Your task to perform on an android device: Search for razer huntsman on amazon, select the first entry, add it to the cart, then select checkout. Image 0: 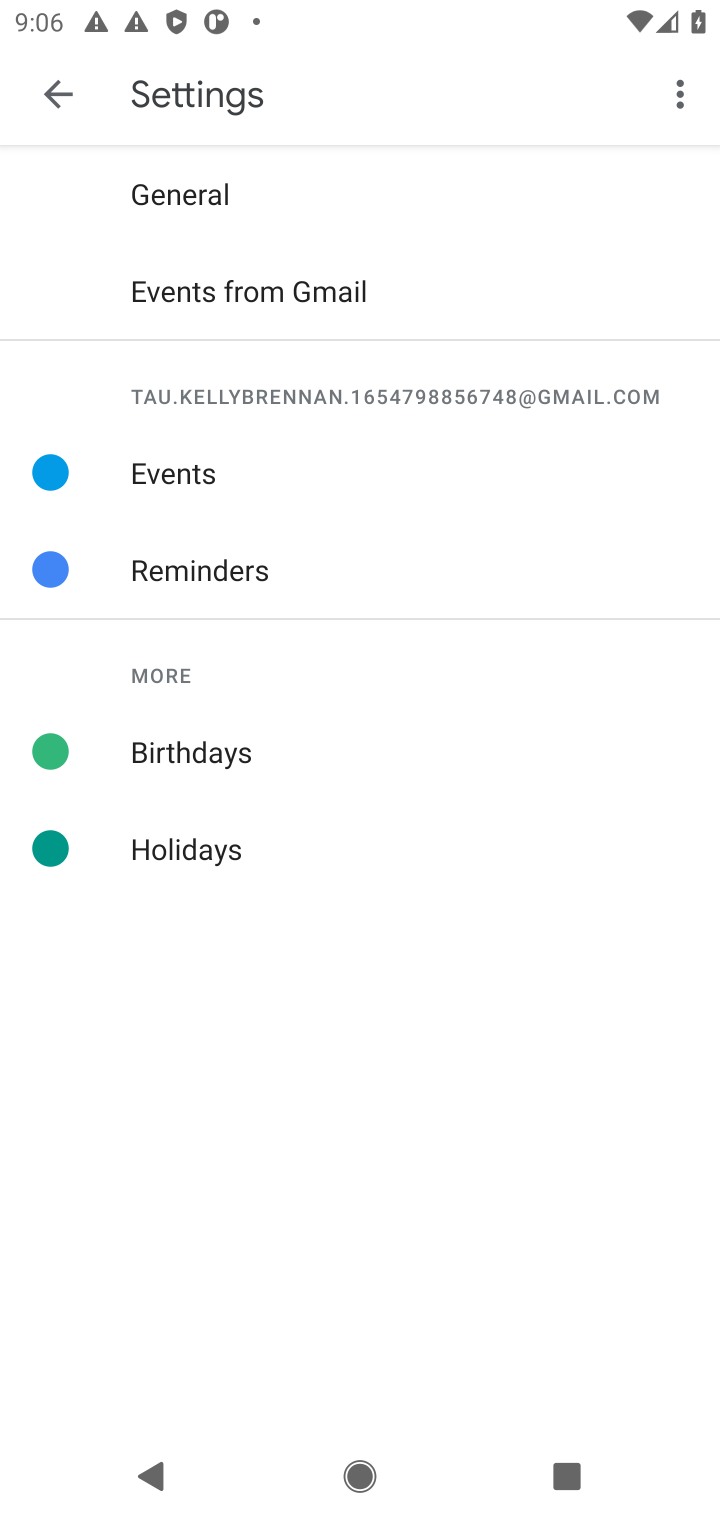
Step 0: press home button
Your task to perform on an android device: Search for razer huntsman on amazon, select the first entry, add it to the cart, then select checkout. Image 1: 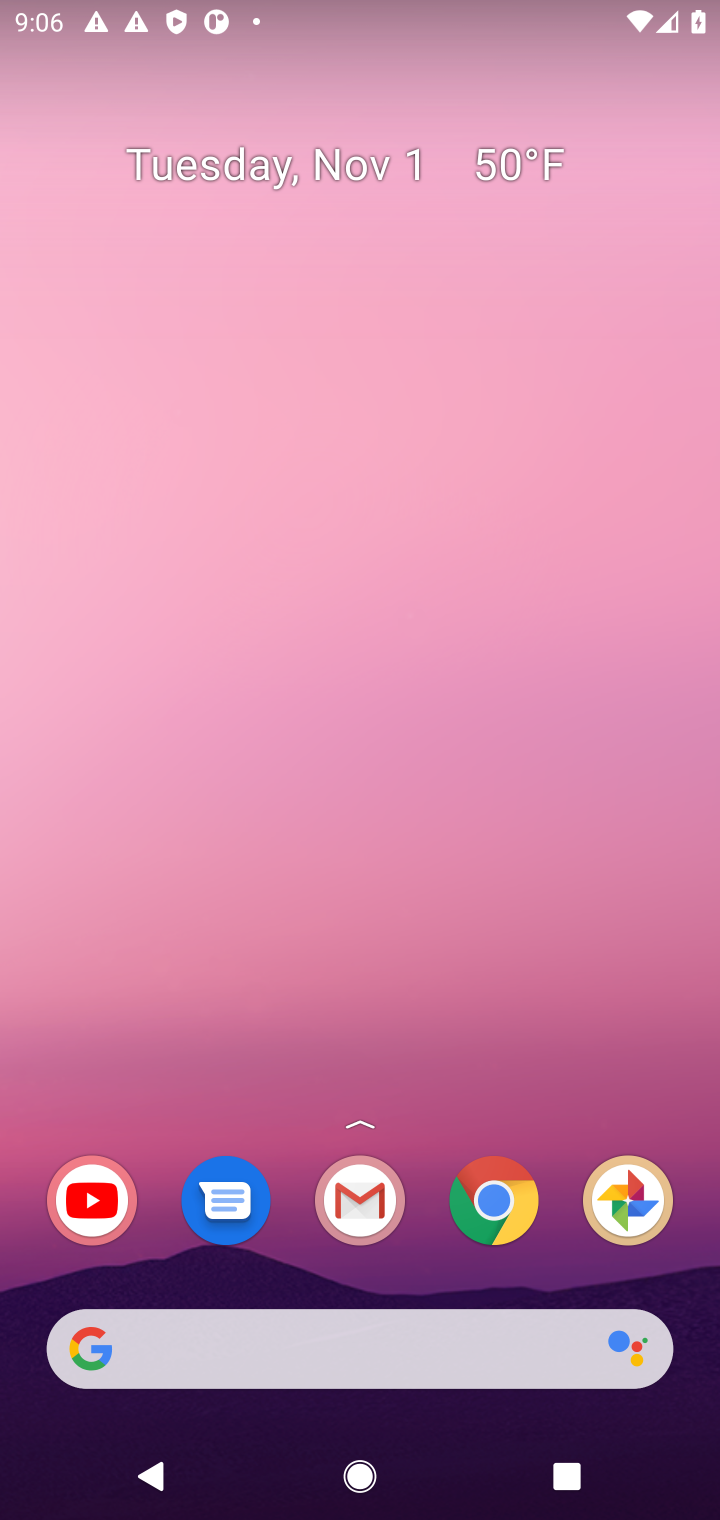
Step 1: click (175, 1371)
Your task to perform on an android device: Search for razer huntsman on amazon, select the first entry, add it to the cart, then select checkout. Image 2: 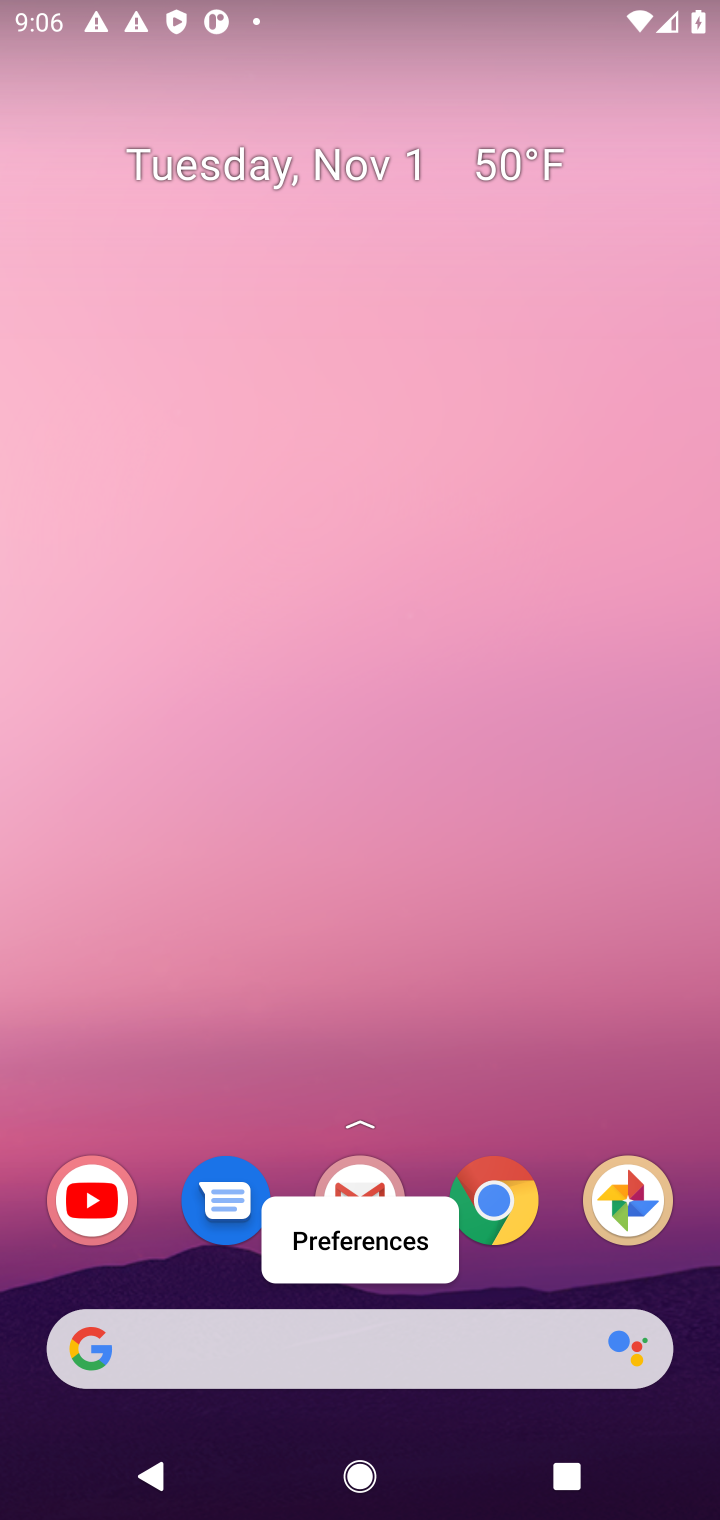
Step 2: click (190, 1368)
Your task to perform on an android device: Search for razer huntsman on amazon, select the first entry, add it to the cart, then select checkout. Image 3: 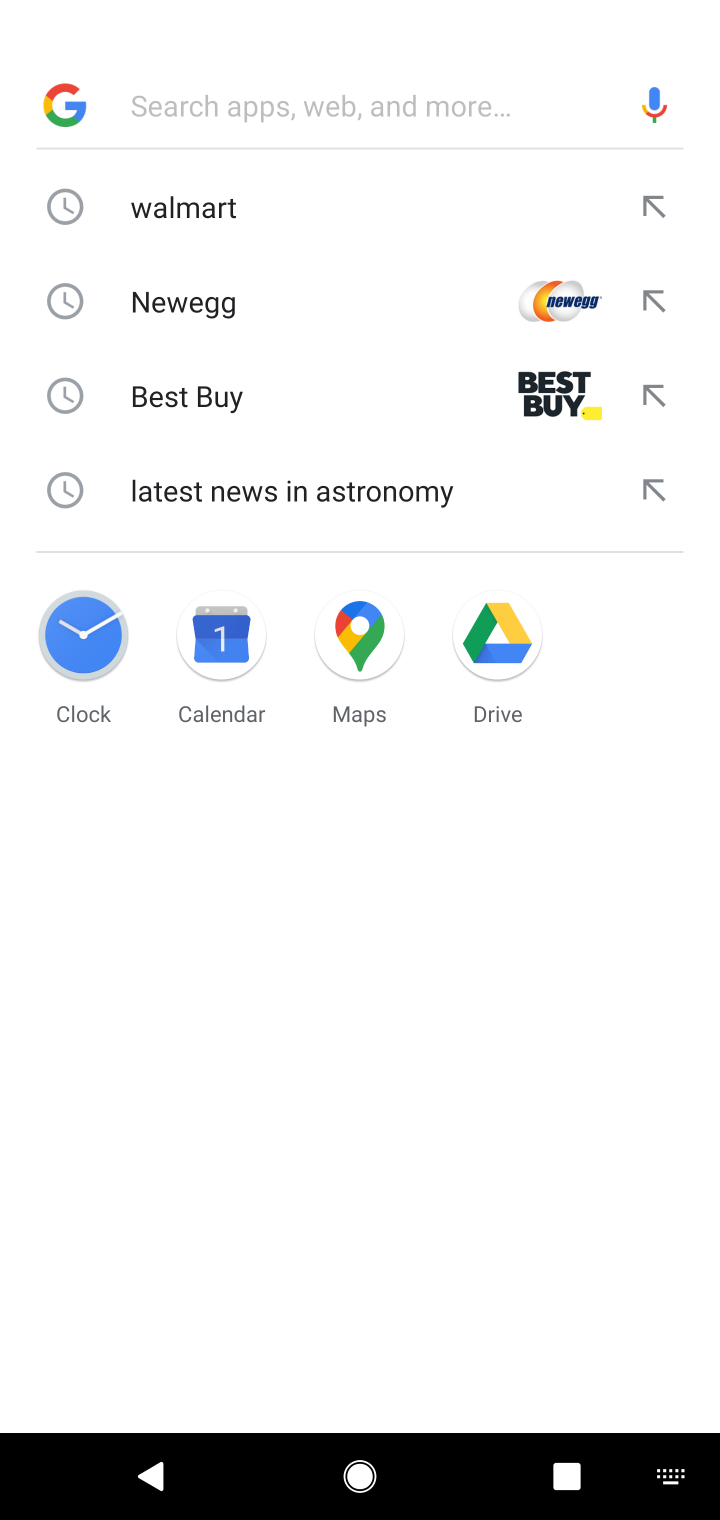
Step 3: type "amazon"
Your task to perform on an android device: Search for razer huntsman on amazon, select the first entry, add it to the cart, then select checkout. Image 4: 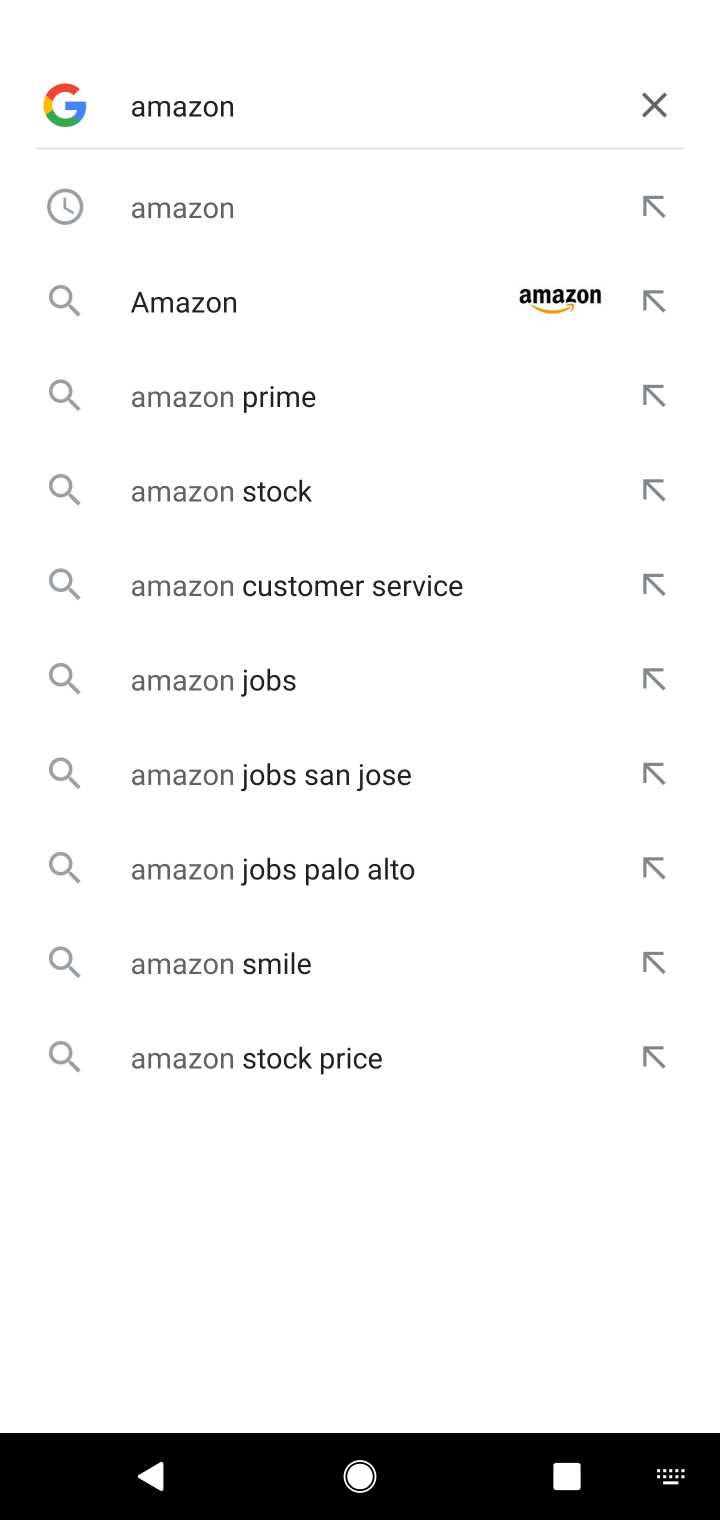
Step 4: click (284, 202)
Your task to perform on an android device: Search for razer huntsman on amazon, select the first entry, add it to the cart, then select checkout. Image 5: 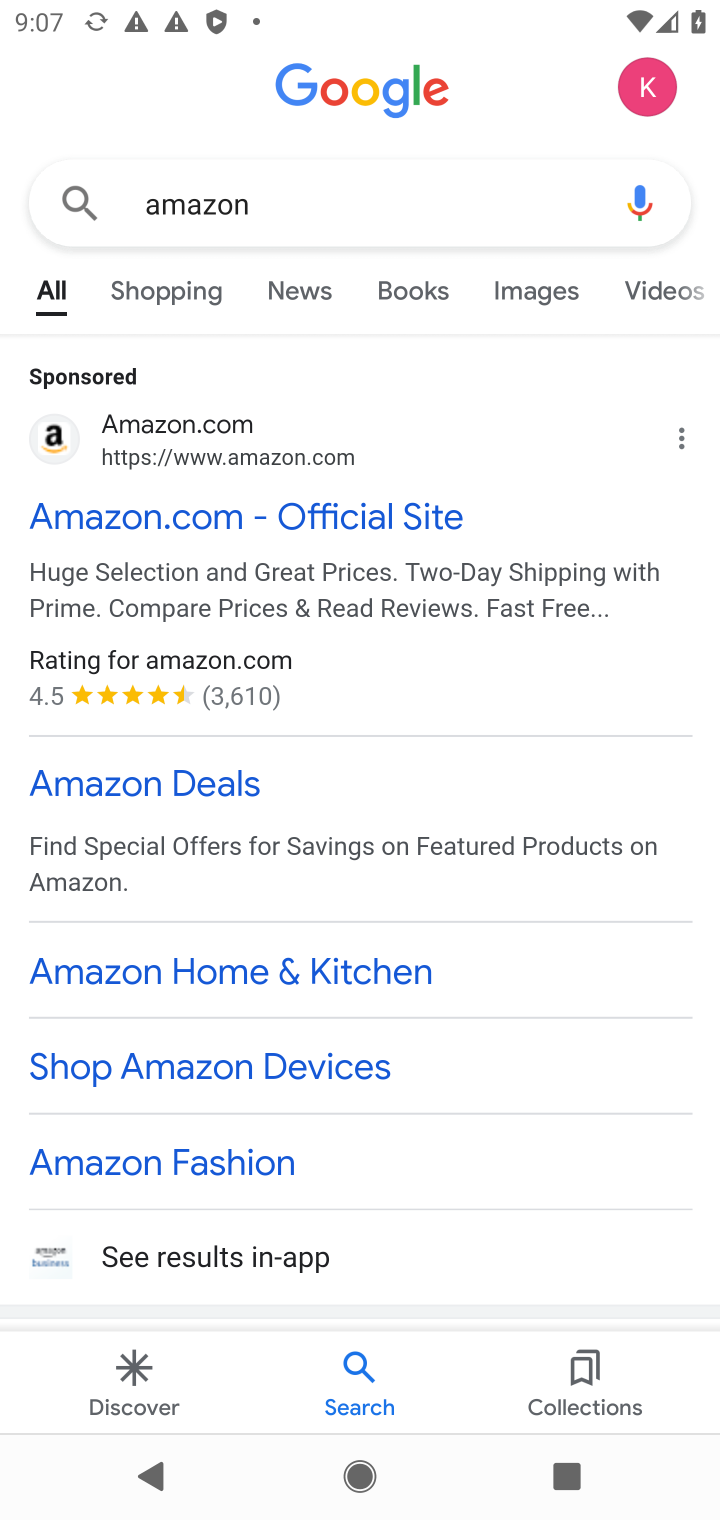
Step 5: click (147, 502)
Your task to perform on an android device: Search for razer huntsman on amazon, select the first entry, add it to the cart, then select checkout. Image 6: 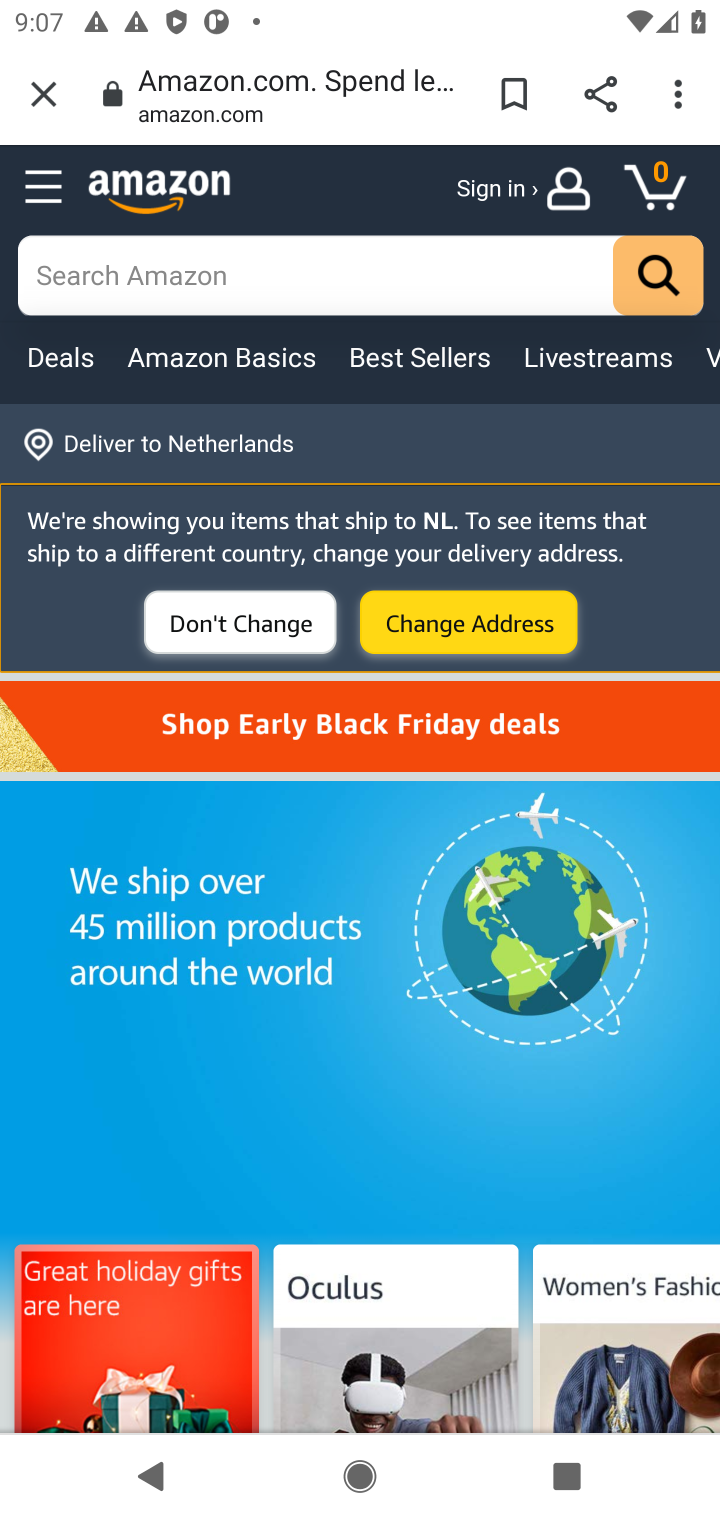
Step 6: click (300, 271)
Your task to perform on an android device: Search for razer huntsman on amazon, select the first entry, add it to the cart, then select checkout. Image 7: 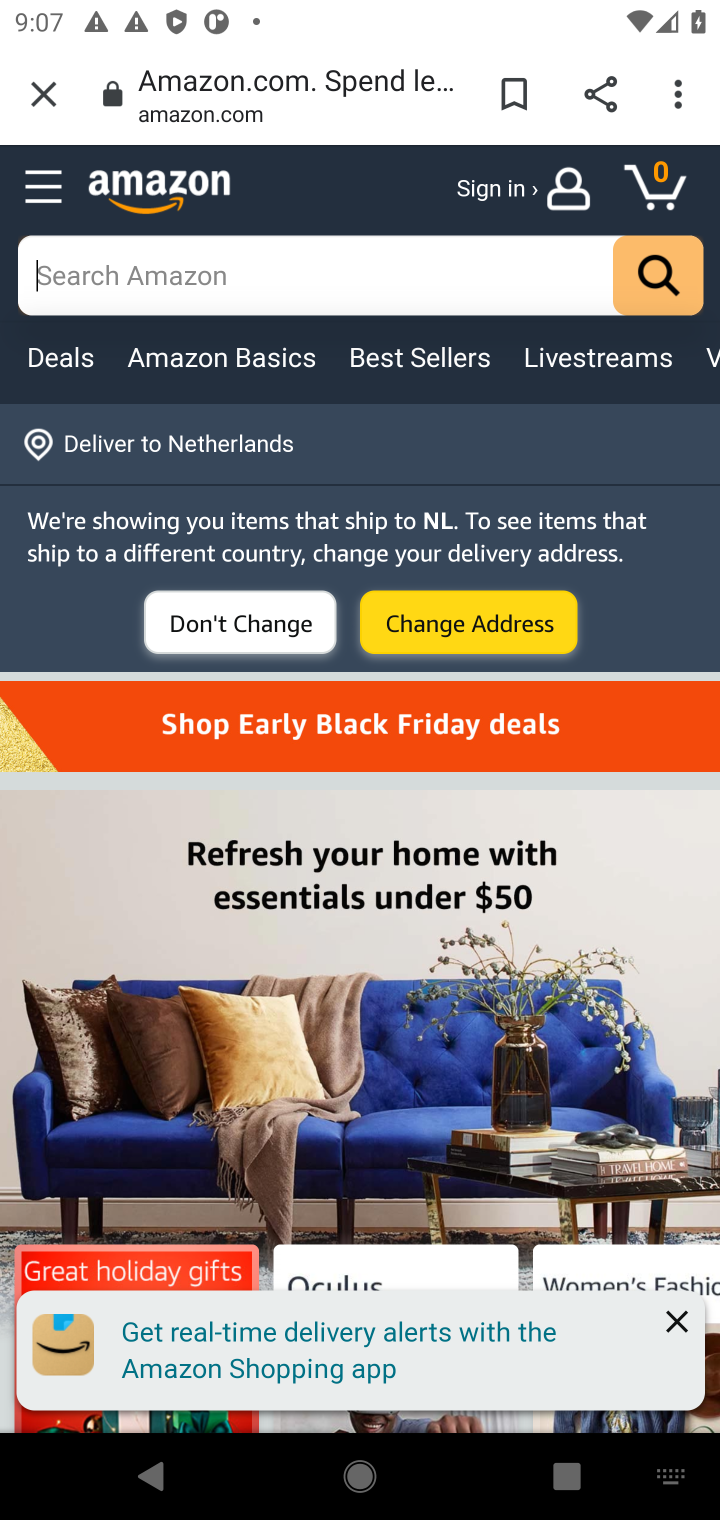
Step 7: type "razer huntsman"
Your task to perform on an android device: Search for razer huntsman on amazon, select the first entry, add it to the cart, then select checkout. Image 8: 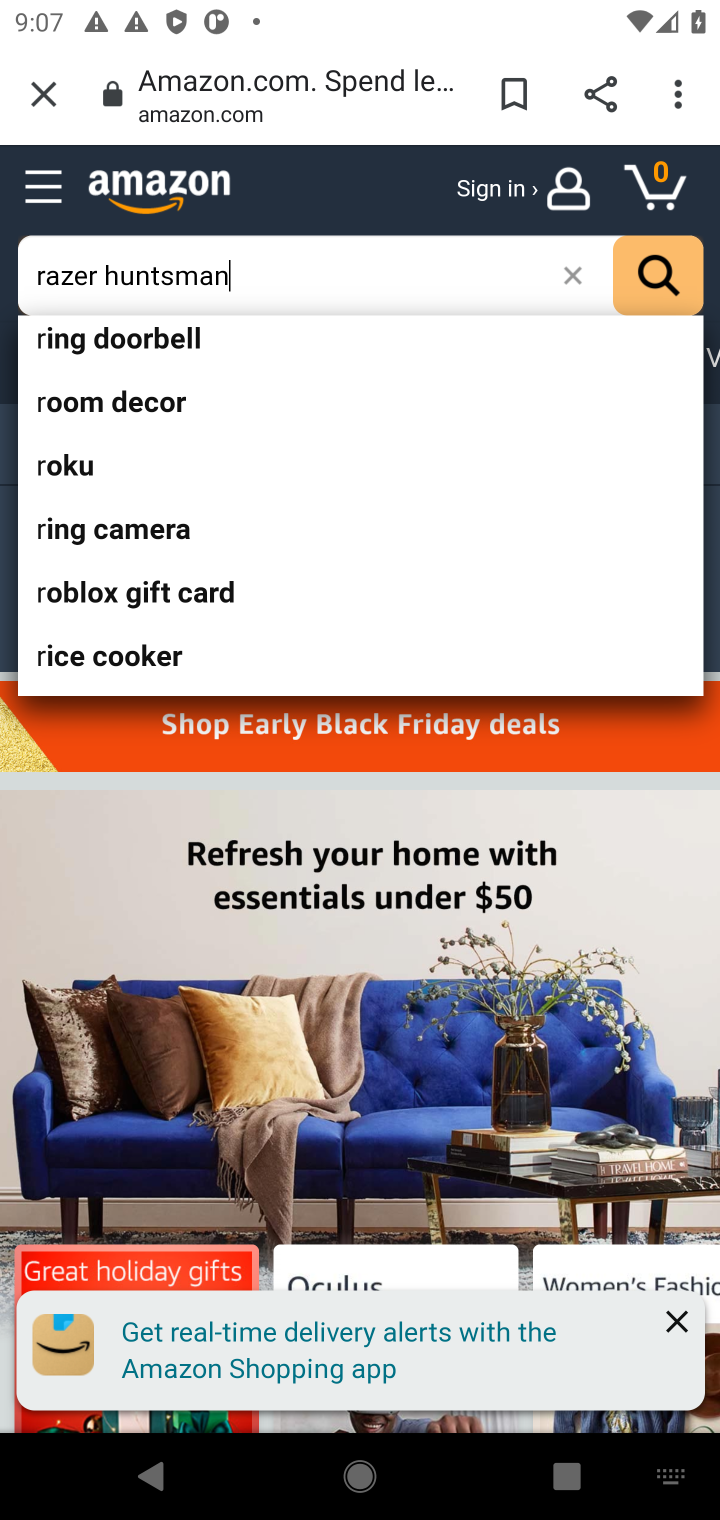
Step 8: type ""
Your task to perform on an android device: Search for razer huntsman on amazon, select the first entry, add it to the cart, then select checkout. Image 9: 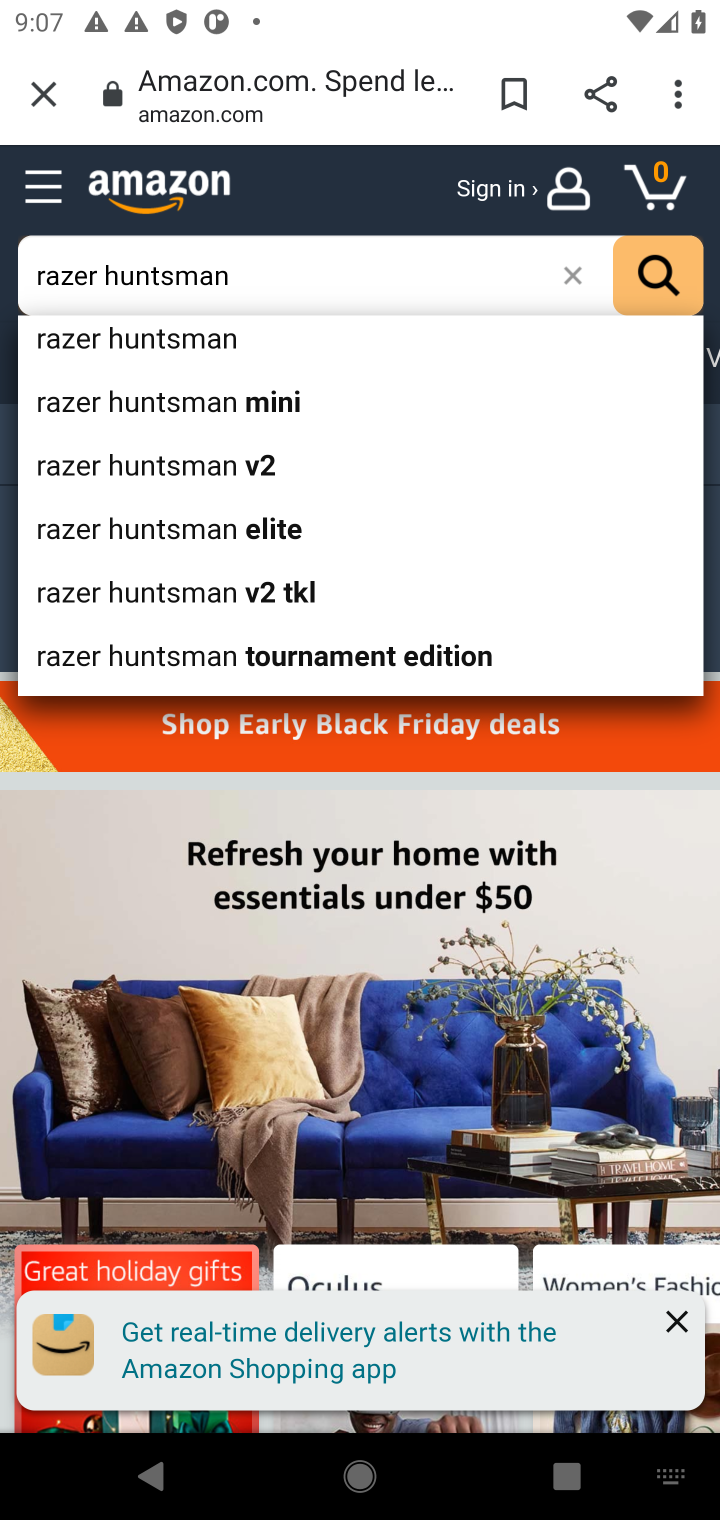
Step 9: click (175, 319)
Your task to perform on an android device: Search for razer huntsman on amazon, select the first entry, add it to the cart, then select checkout. Image 10: 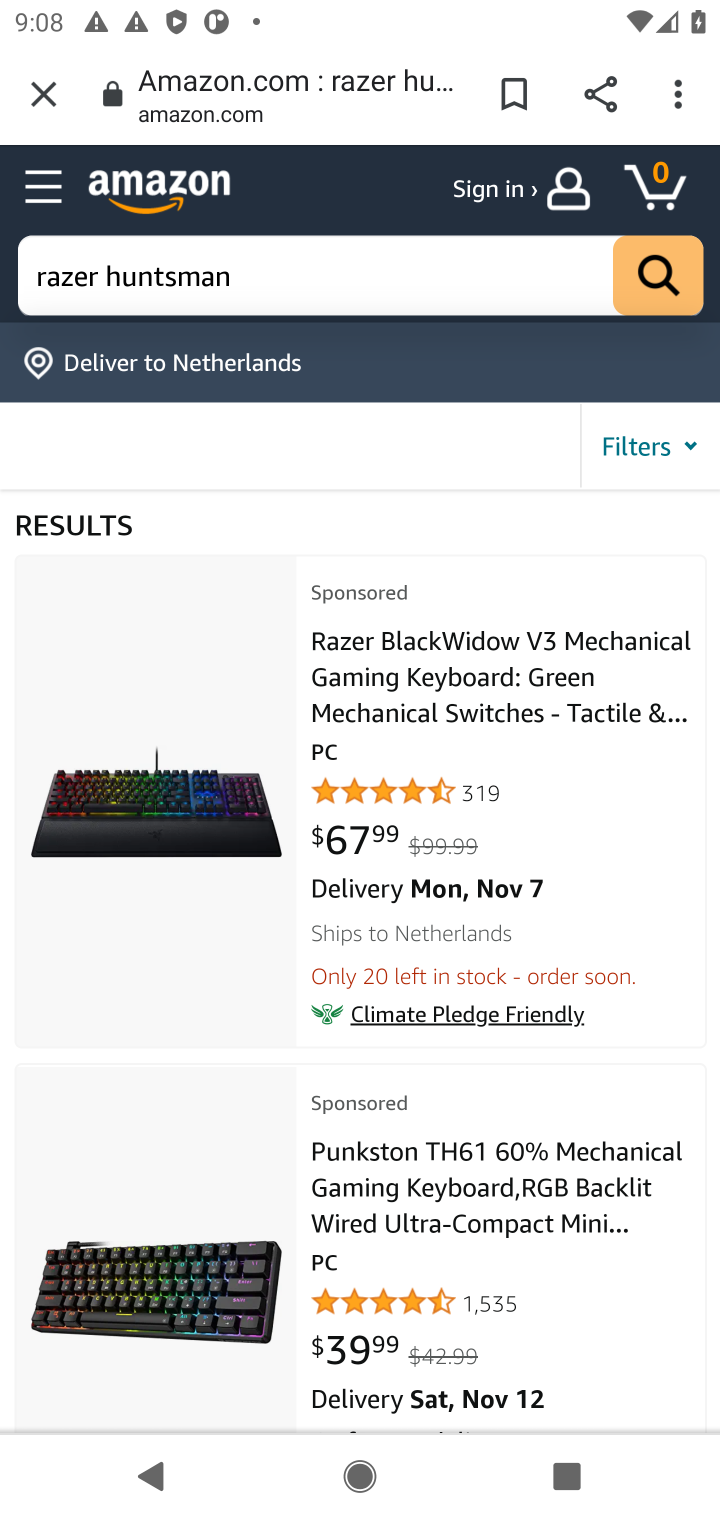
Step 10: click (511, 348)
Your task to perform on an android device: Search for razer huntsman on amazon, select the first entry, add it to the cart, then select checkout. Image 11: 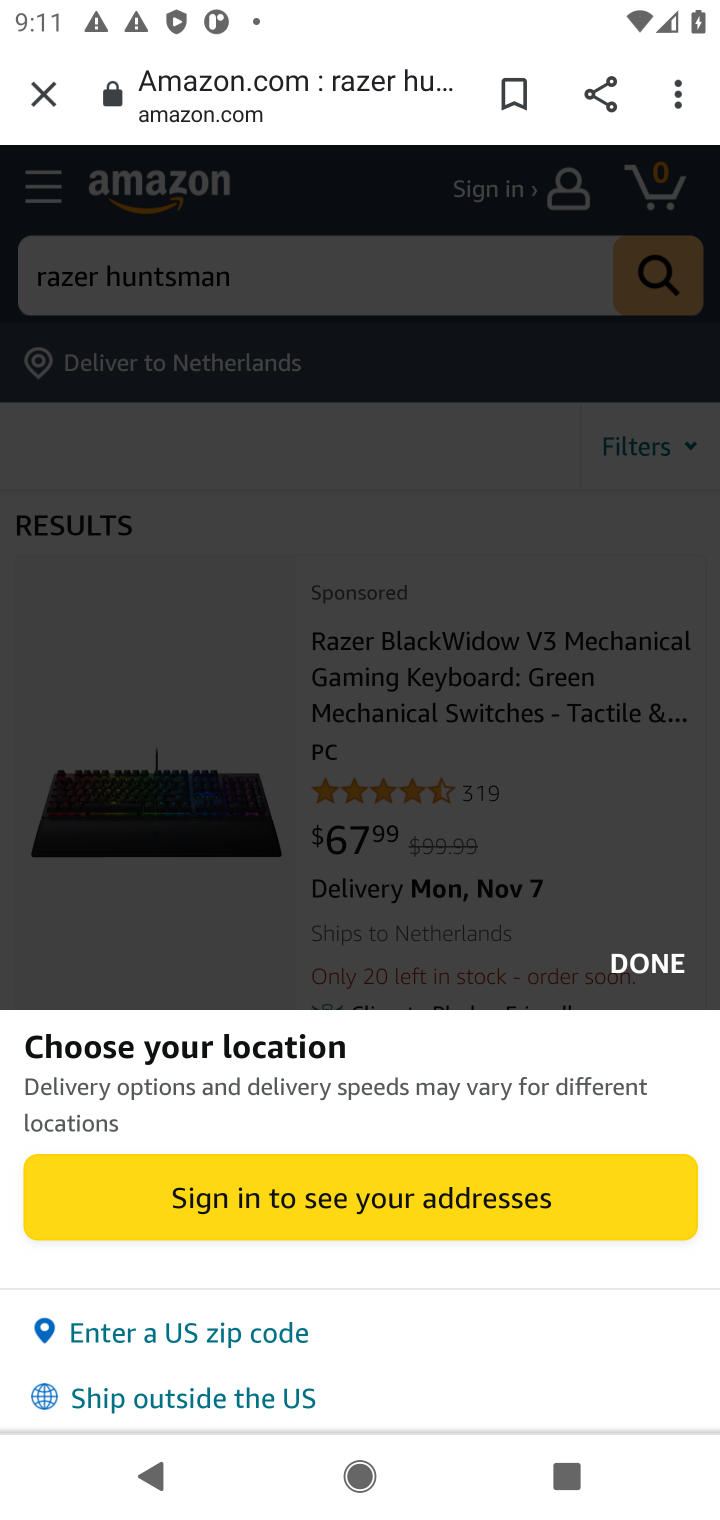
Step 11: click (606, 982)
Your task to perform on an android device: Search for razer huntsman on amazon, select the first entry, add it to the cart, then select checkout. Image 12: 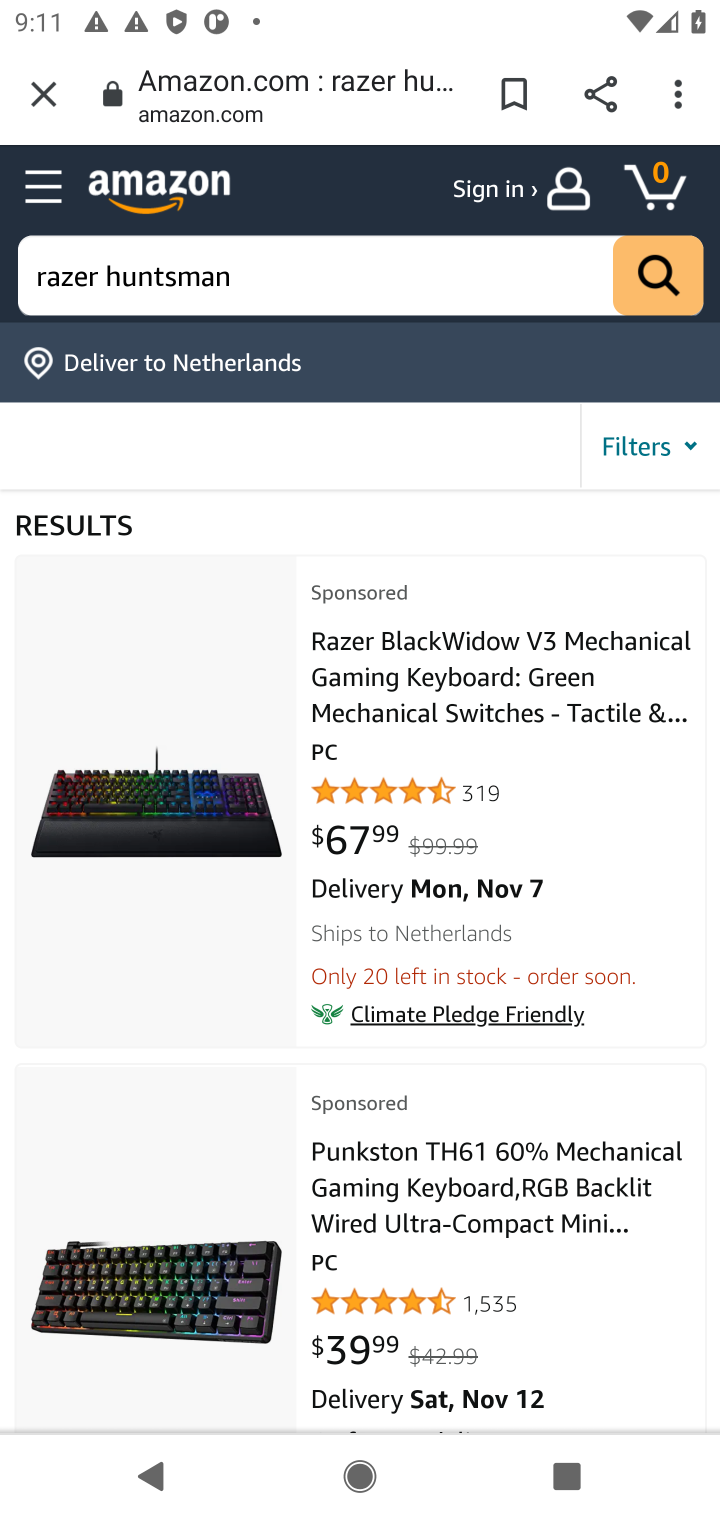
Step 12: click (395, 723)
Your task to perform on an android device: Search for razer huntsman on amazon, select the first entry, add it to the cart, then select checkout. Image 13: 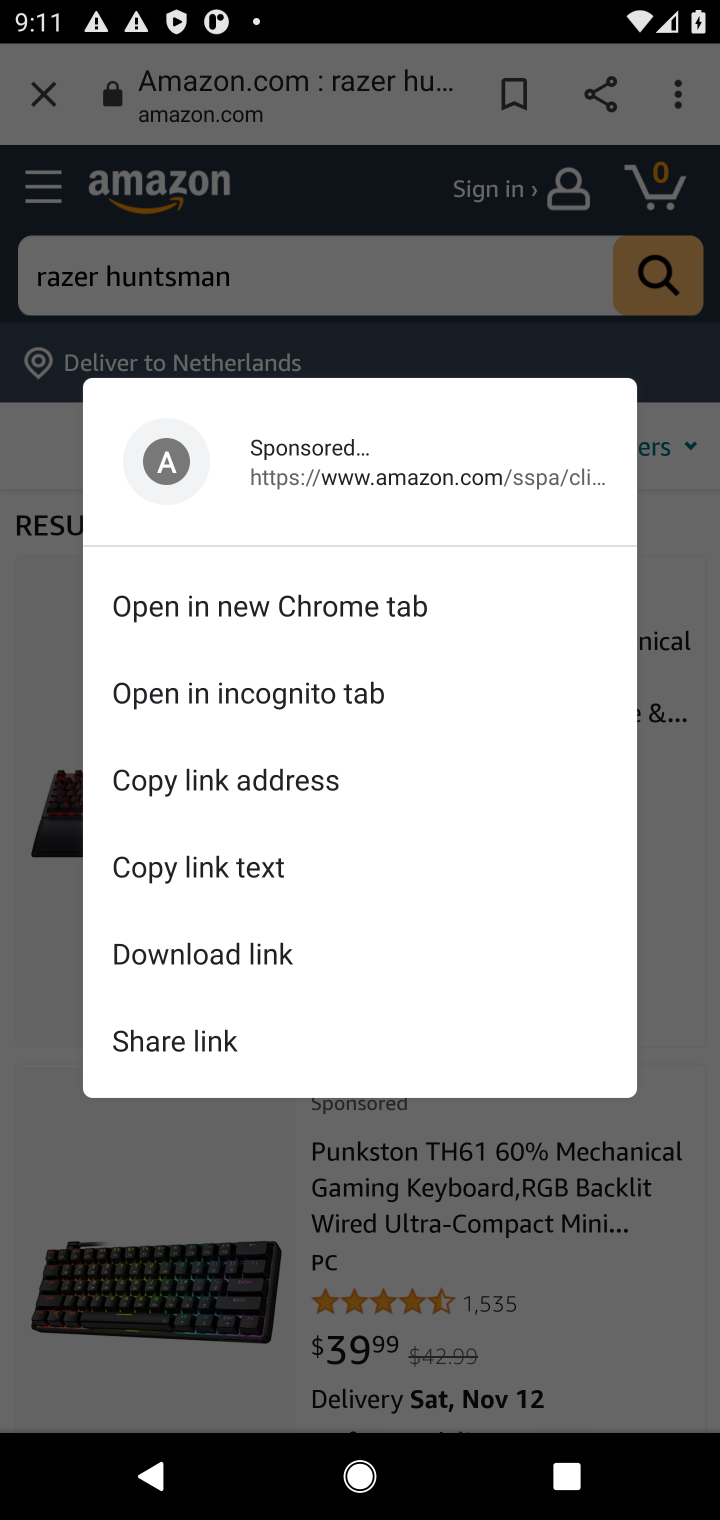
Step 13: click (688, 676)
Your task to perform on an android device: Search for razer huntsman on amazon, select the first entry, add it to the cart, then select checkout. Image 14: 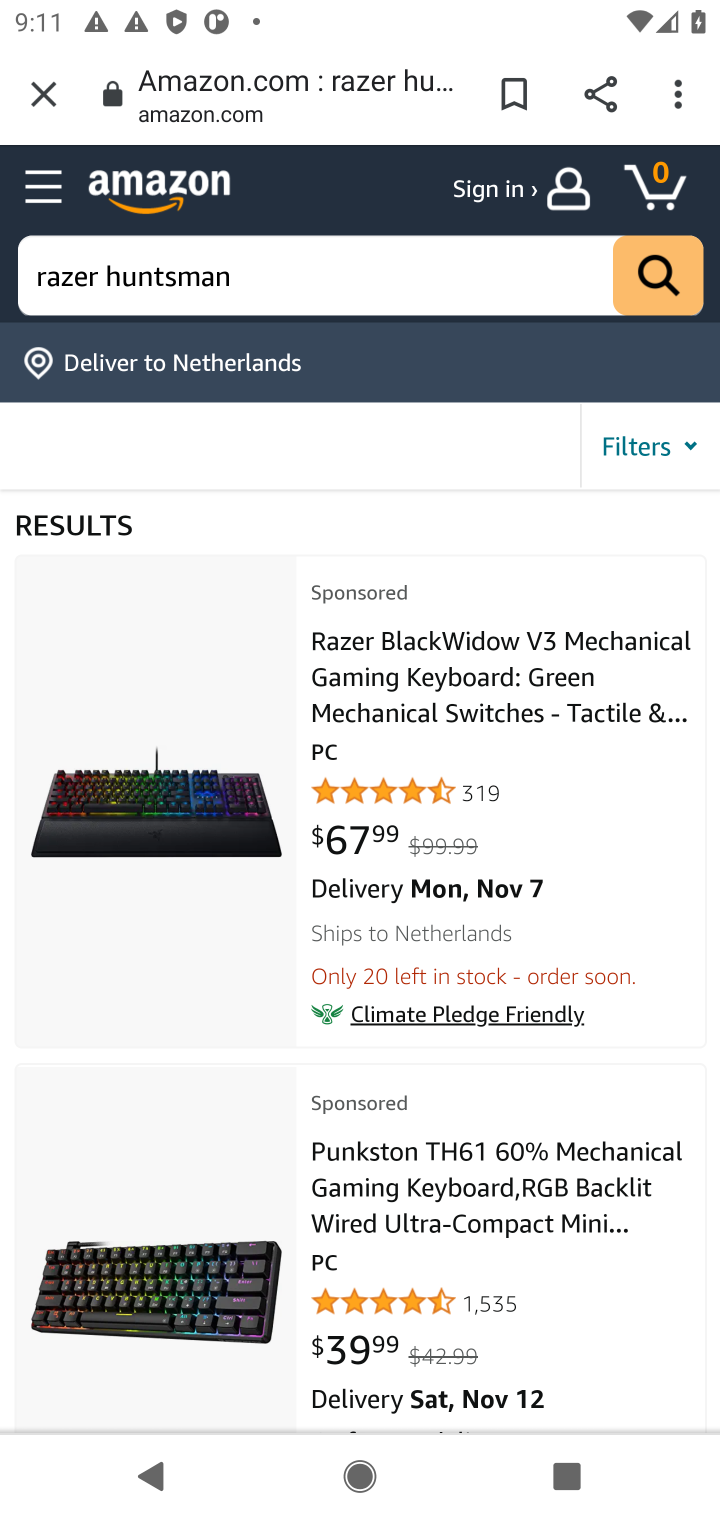
Step 14: click (421, 681)
Your task to perform on an android device: Search for razer huntsman on amazon, select the first entry, add it to the cart, then select checkout. Image 15: 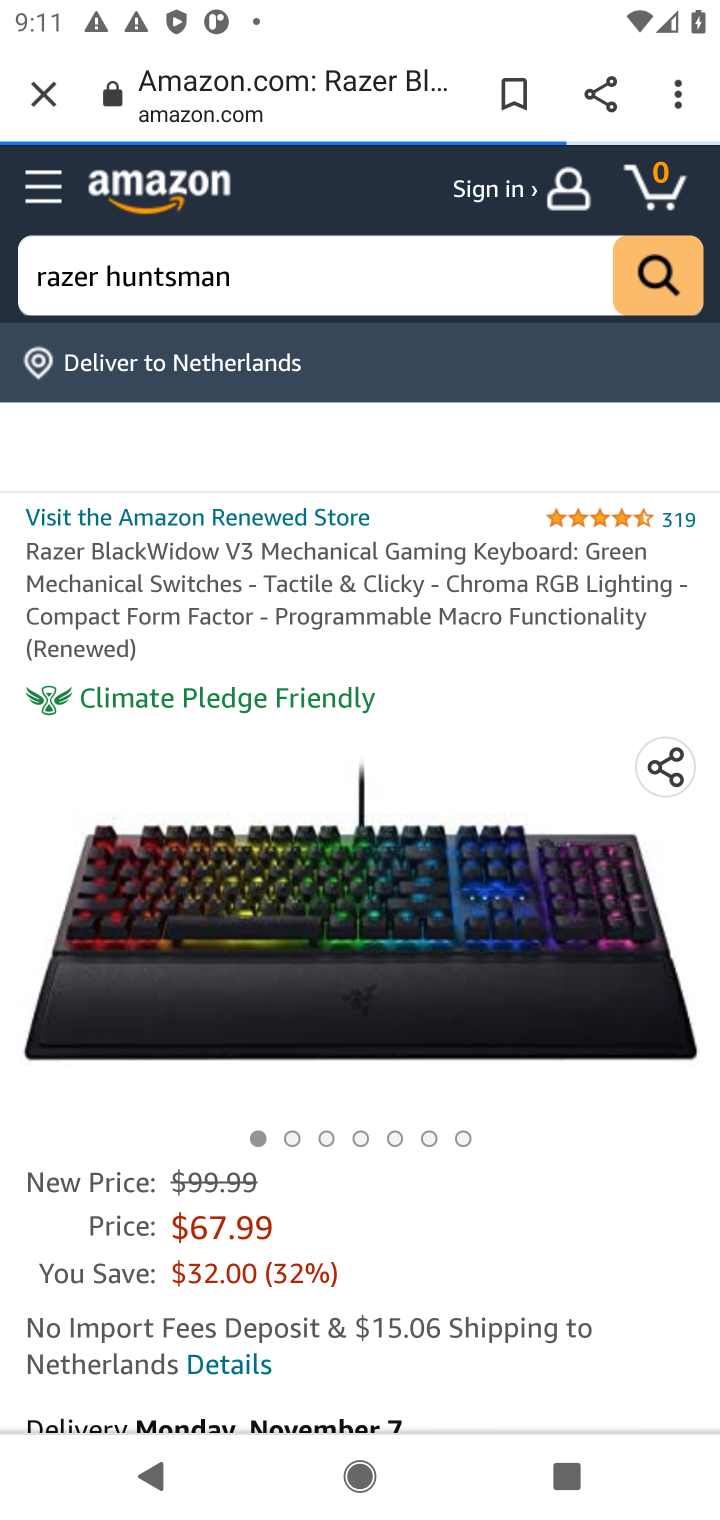
Step 15: drag from (412, 1277) to (521, 478)
Your task to perform on an android device: Search for razer huntsman on amazon, select the first entry, add it to the cart, then select checkout. Image 16: 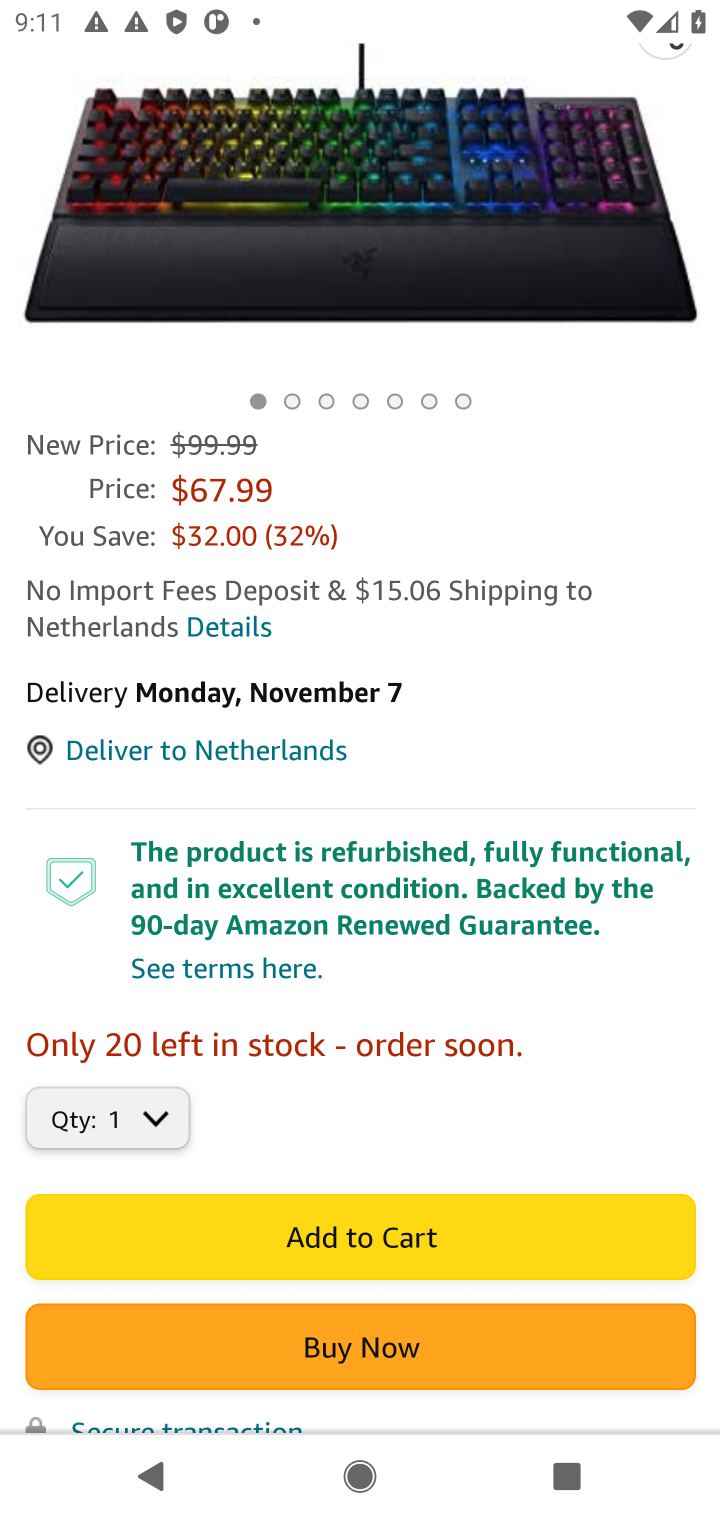
Step 16: click (459, 1228)
Your task to perform on an android device: Search for razer huntsman on amazon, select the first entry, add it to the cart, then select checkout. Image 17: 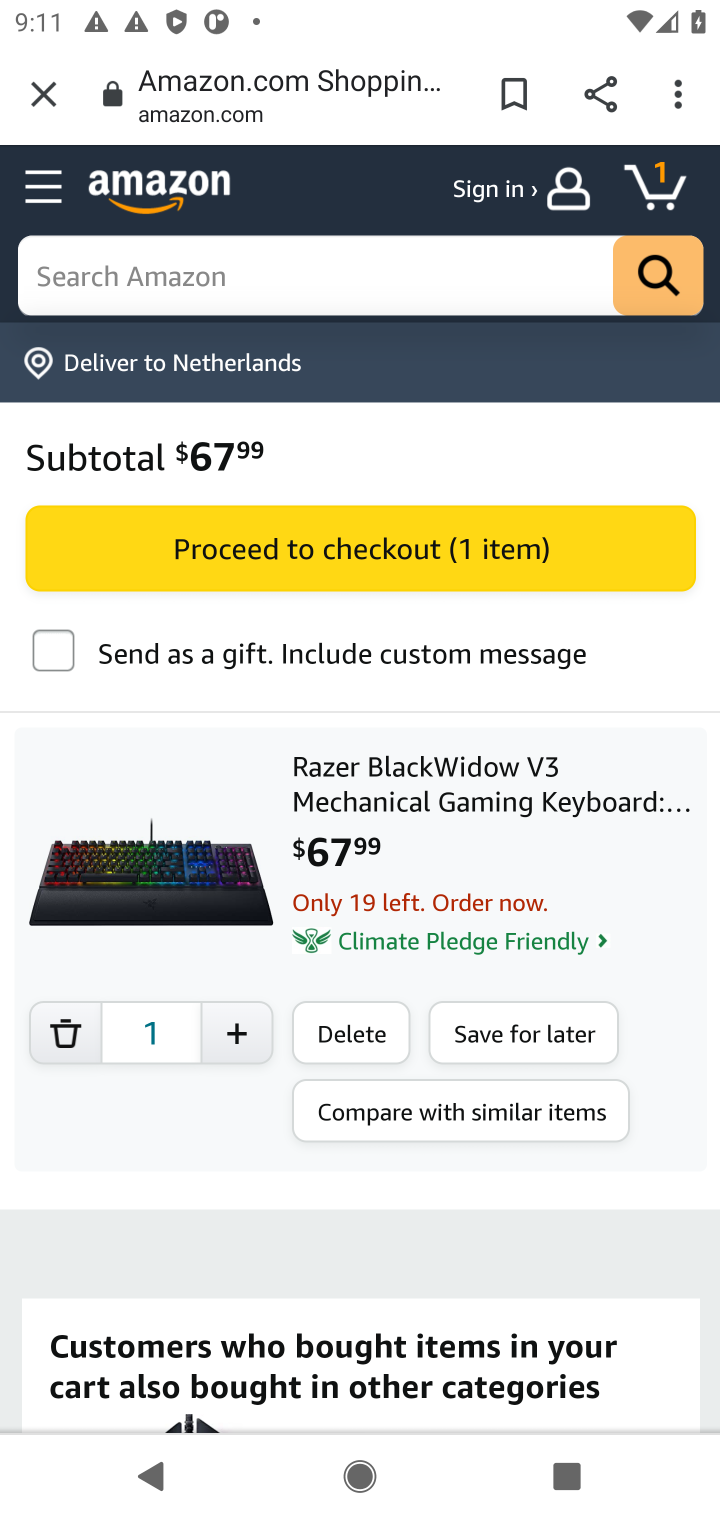
Step 17: task complete